Your task to perform on an android device: Open the map Image 0: 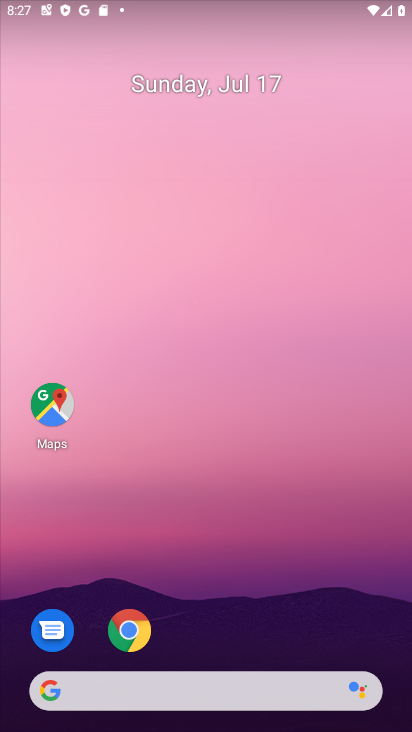
Step 0: click (58, 422)
Your task to perform on an android device: Open the map Image 1: 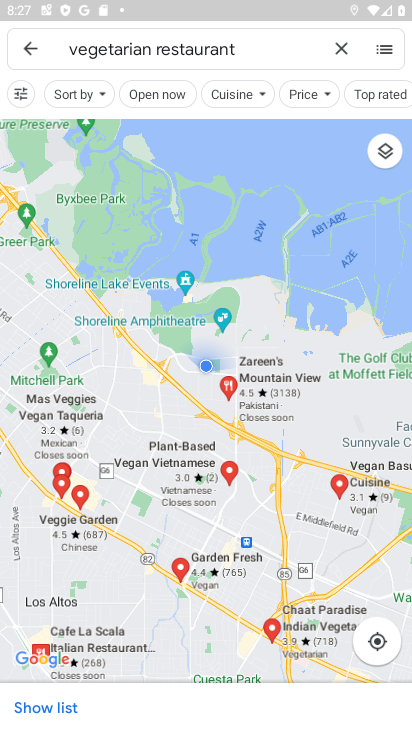
Step 1: task complete